Your task to perform on an android device: toggle wifi Image 0: 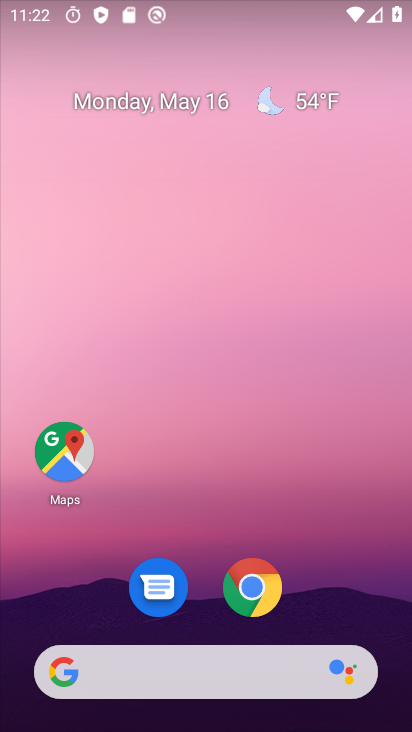
Step 0: drag from (190, 604) to (170, 43)
Your task to perform on an android device: toggle wifi Image 1: 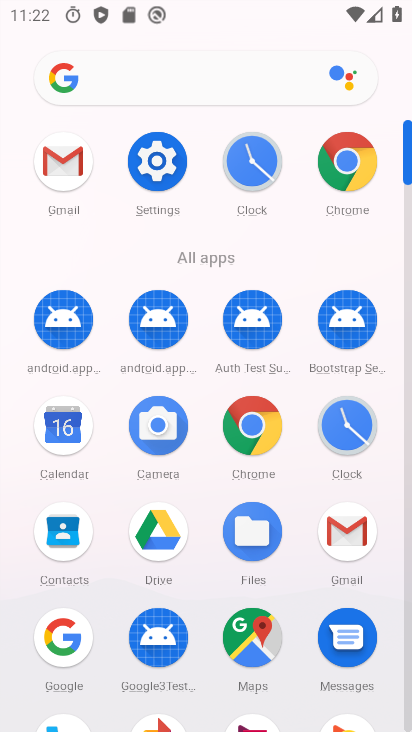
Step 1: click (144, 147)
Your task to perform on an android device: toggle wifi Image 2: 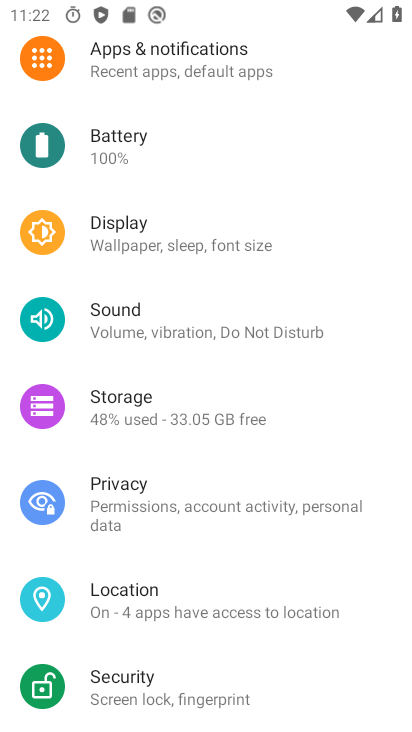
Step 2: drag from (175, 128) to (406, 713)
Your task to perform on an android device: toggle wifi Image 3: 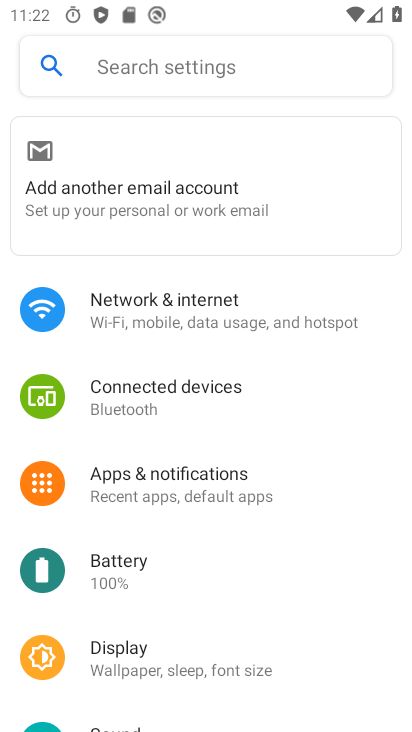
Step 3: click (174, 298)
Your task to perform on an android device: toggle wifi Image 4: 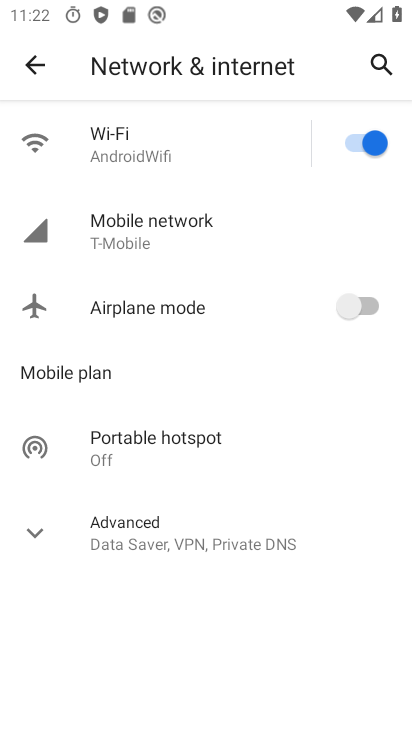
Step 4: click (201, 140)
Your task to perform on an android device: toggle wifi Image 5: 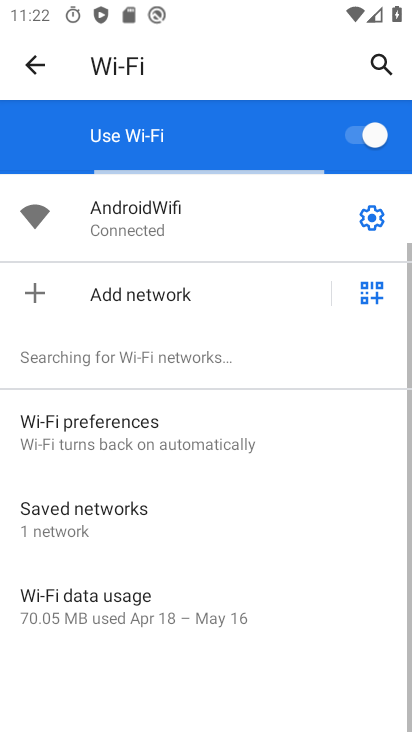
Step 5: click (358, 141)
Your task to perform on an android device: toggle wifi Image 6: 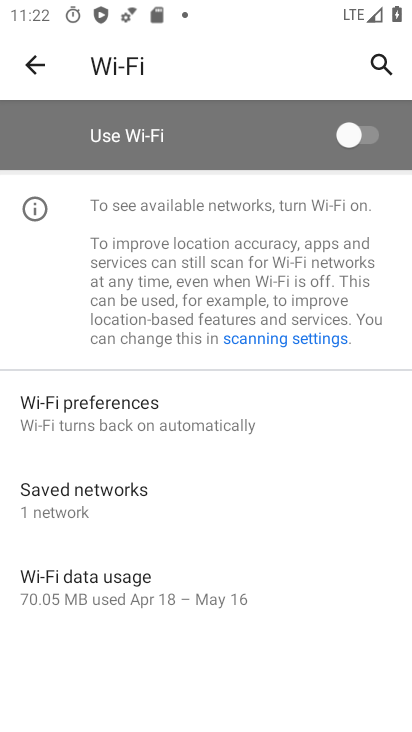
Step 6: task complete